Your task to perform on an android device: set an alarm Image 0: 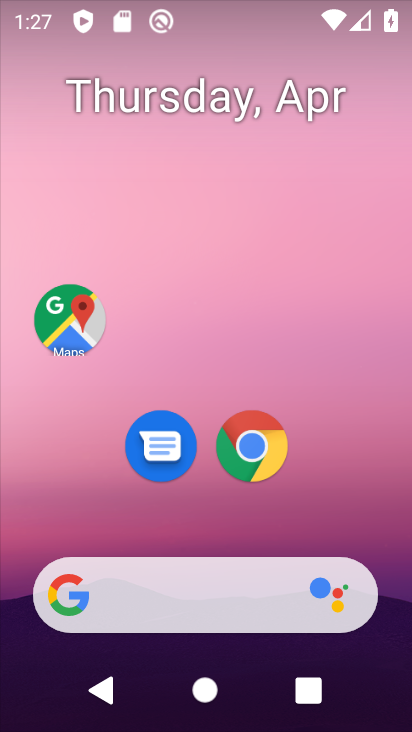
Step 0: drag from (200, 407) to (259, 33)
Your task to perform on an android device: set an alarm Image 1: 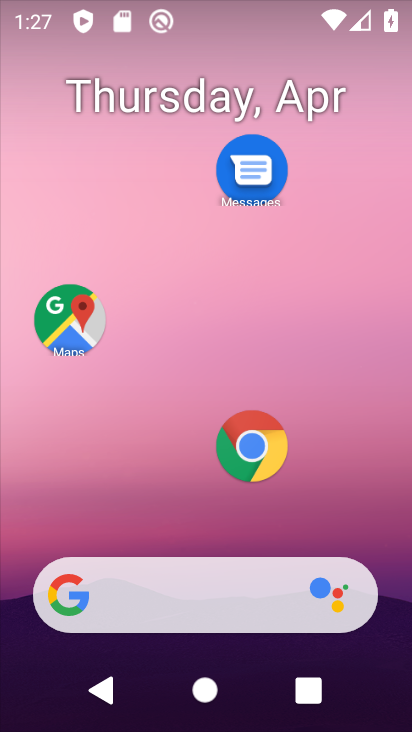
Step 1: drag from (344, 411) to (310, 21)
Your task to perform on an android device: set an alarm Image 2: 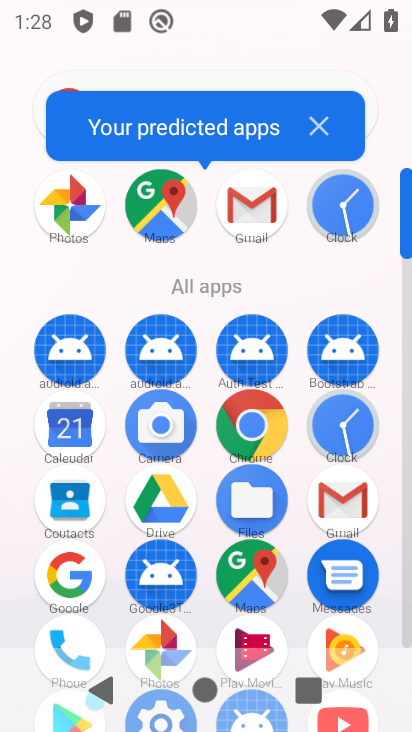
Step 2: click (343, 205)
Your task to perform on an android device: set an alarm Image 3: 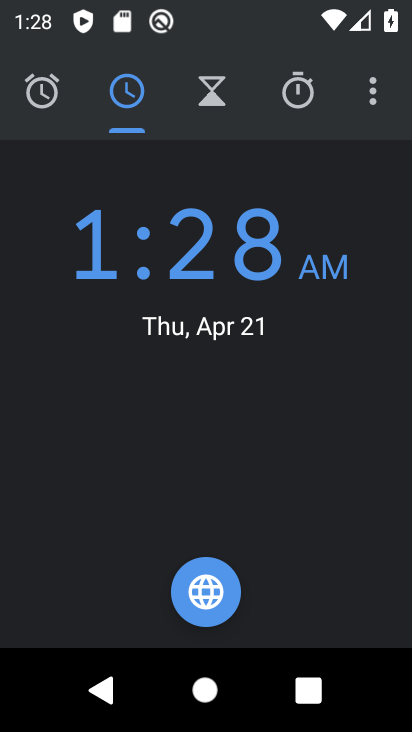
Step 3: click (44, 96)
Your task to perform on an android device: set an alarm Image 4: 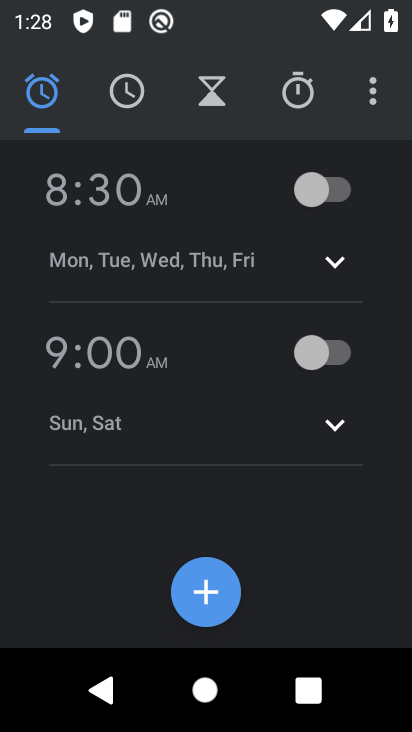
Step 4: click (206, 592)
Your task to perform on an android device: set an alarm Image 5: 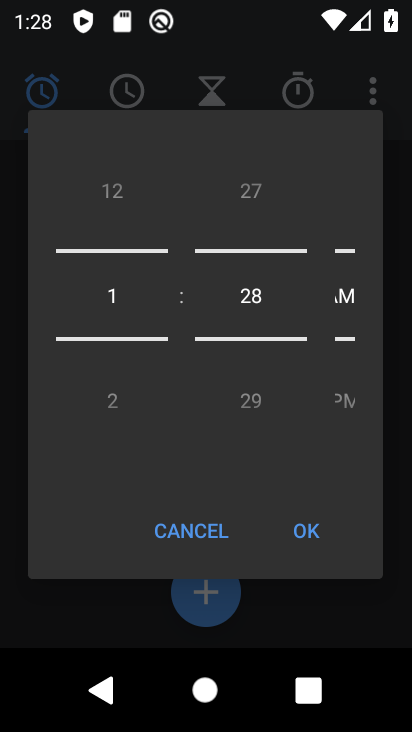
Step 5: drag from (120, 323) to (91, 427)
Your task to perform on an android device: set an alarm Image 6: 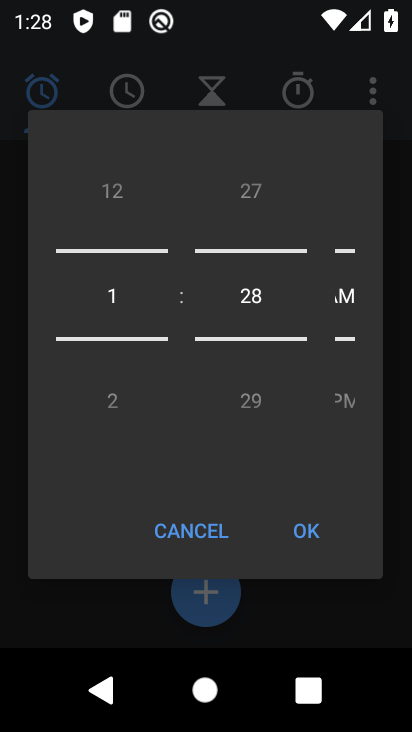
Step 6: drag from (124, 214) to (122, 460)
Your task to perform on an android device: set an alarm Image 7: 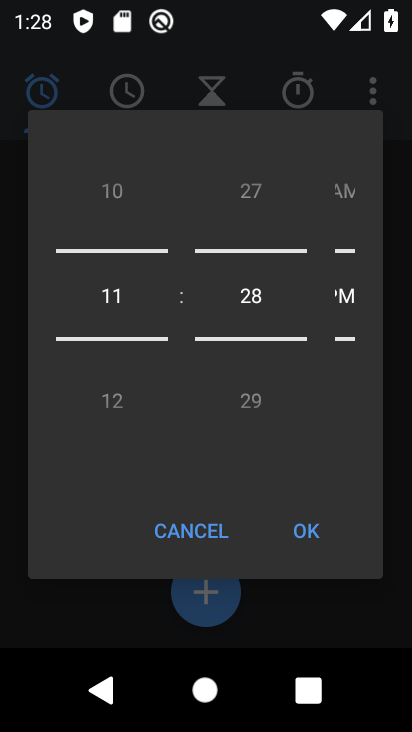
Step 7: drag from (267, 201) to (239, 520)
Your task to perform on an android device: set an alarm Image 8: 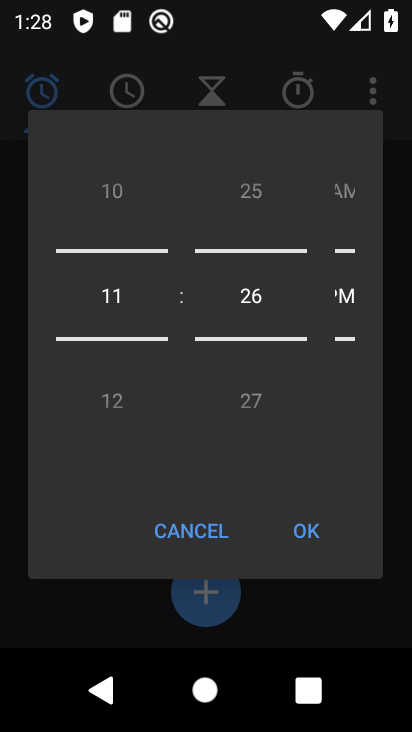
Step 8: drag from (354, 209) to (344, 378)
Your task to perform on an android device: set an alarm Image 9: 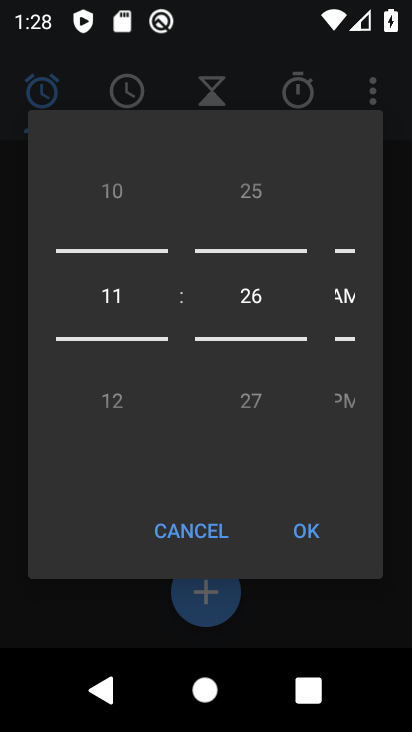
Step 9: click (299, 529)
Your task to perform on an android device: set an alarm Image 10: 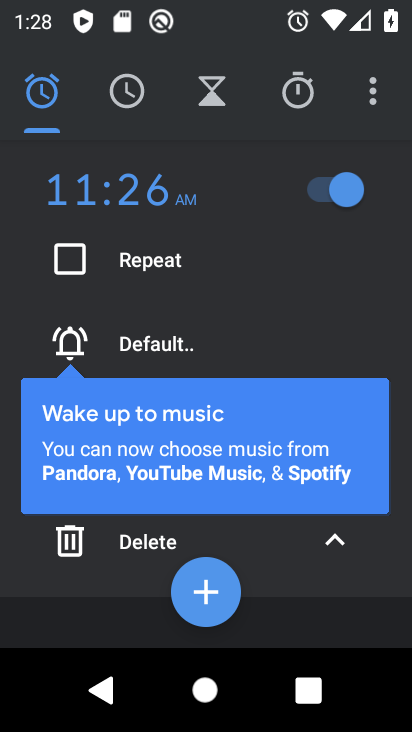
Step 10: click (225, 166)
Your task to perform on an android device: set an alarm Image 11: 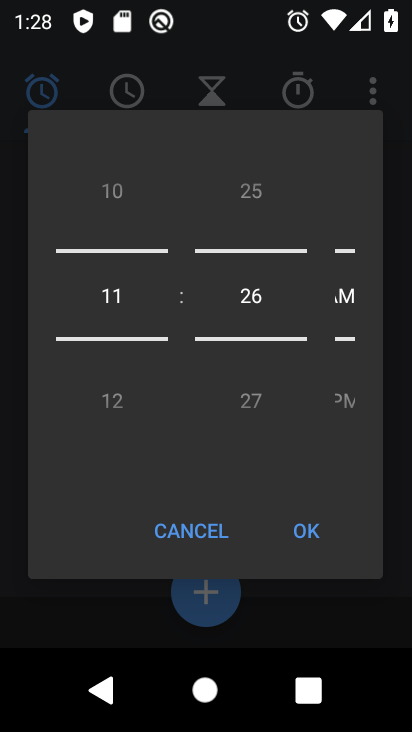
Step 11: click (310, 529)
Your task to perform on an android device: set an alarm Image 12: 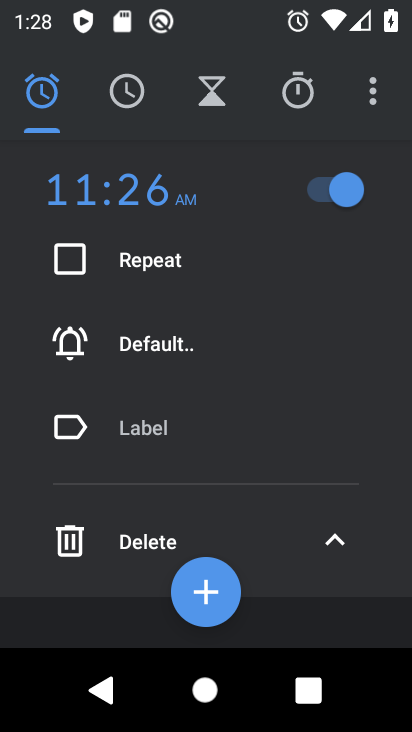
Step 12: click (337, 525)
Your task to perform on an android device: set an alarm Image 13: 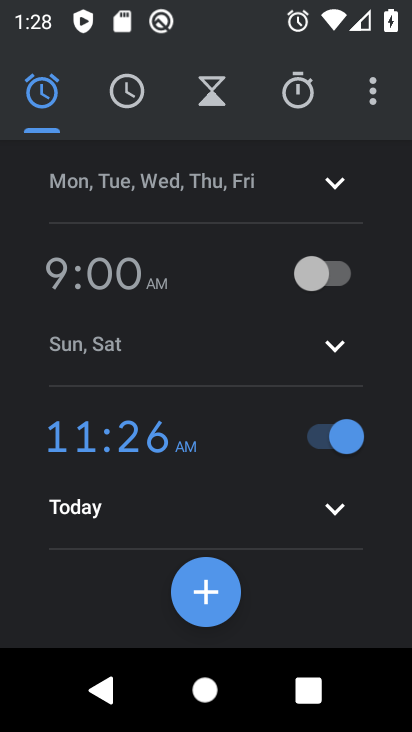
Step 13: task complete